Your task to perform on an android device: Open my contact list Image 0: 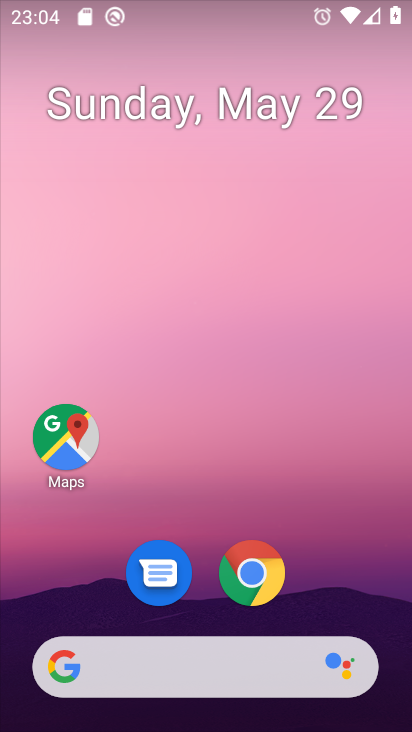
Step 0: drag from (223, 465) to (260, 0)
Your task to perform on an android device: Open my contact list Image 1: 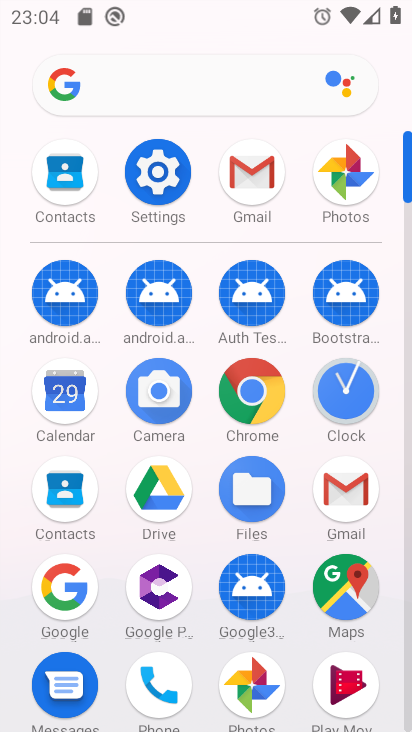
Step 1: click (70, 498)
Your task to perform on an android device: Open my contact list Image 2: 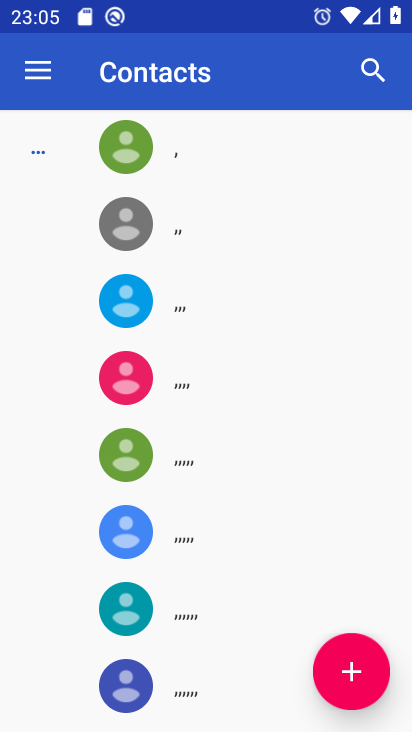
Step 2: task complete